Your task to perform on an android device: Open Google Image 0: 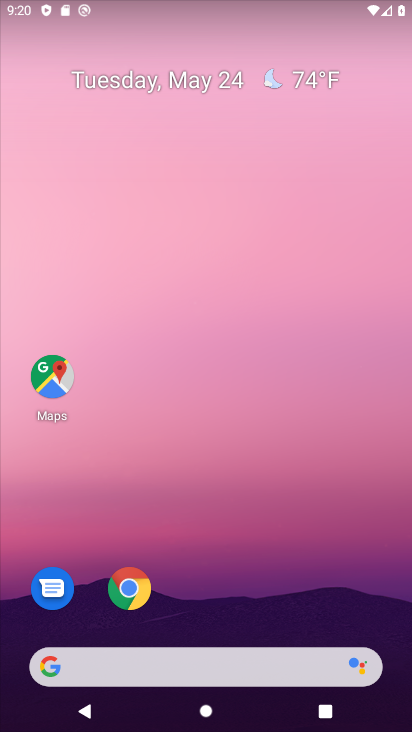
Step 0: click (193, 662)
Your task to perform on an android device: Open Google Image 1: 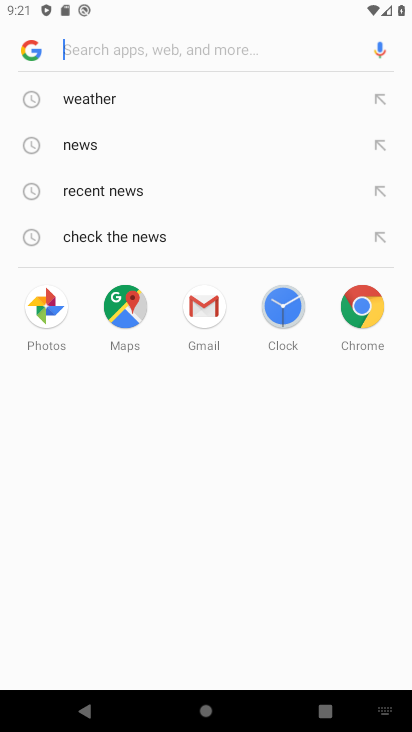
Step 1: task complete